Your task to perform on an android device: Do I have any events today? Image 0: 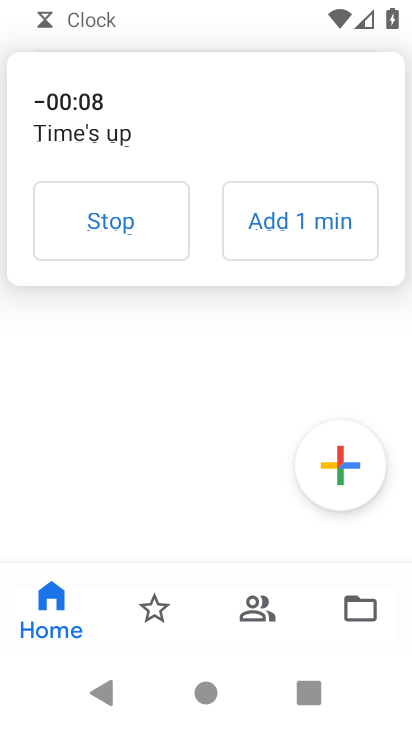
Step 0: drag from (232, 441) to (304, 487)
Your task to perform on an android device: Do I have any events today? Image 1: 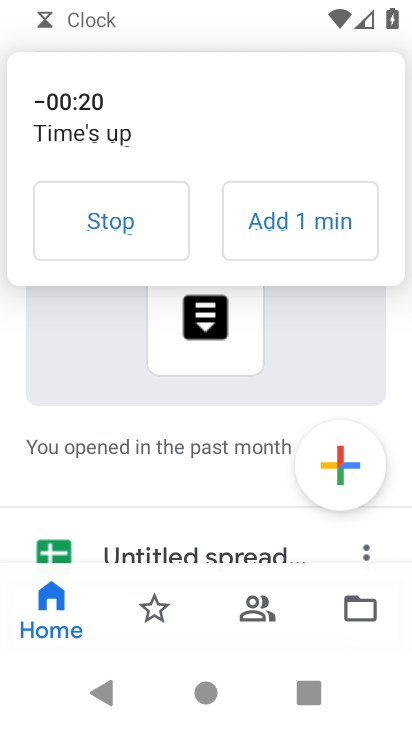
Step 1: press home button
Your task to perform on an android device: Do I have any events today? Image 2: 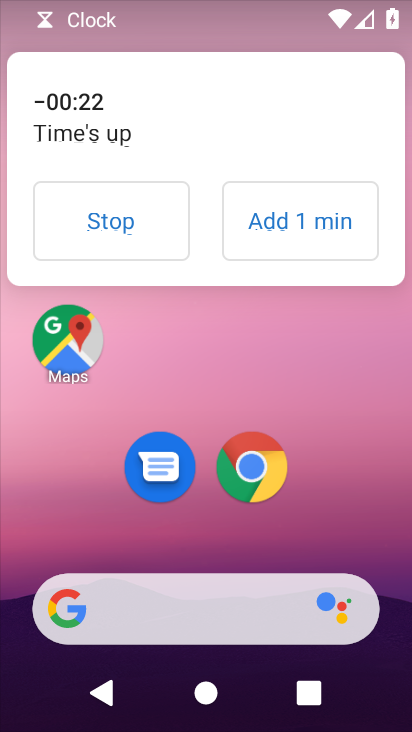
Step 2: click (163, 232)
Your task to perform on an android device: Do I have any events today? Image 3: 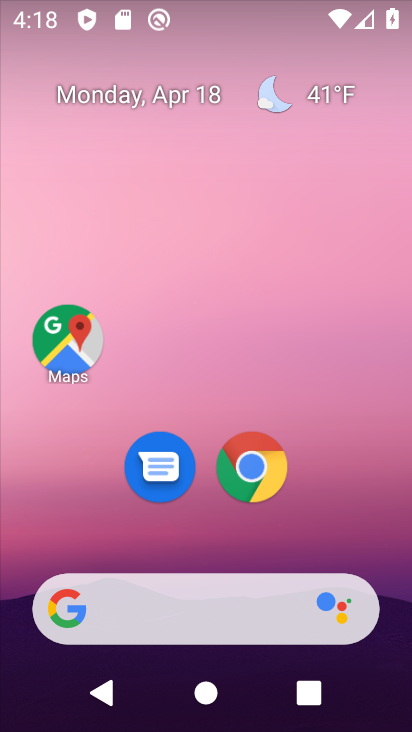
Step 3: drag from (219, 559) to (219, 148)
Your task to perform on an android device: Do I have any events today? Image 4: 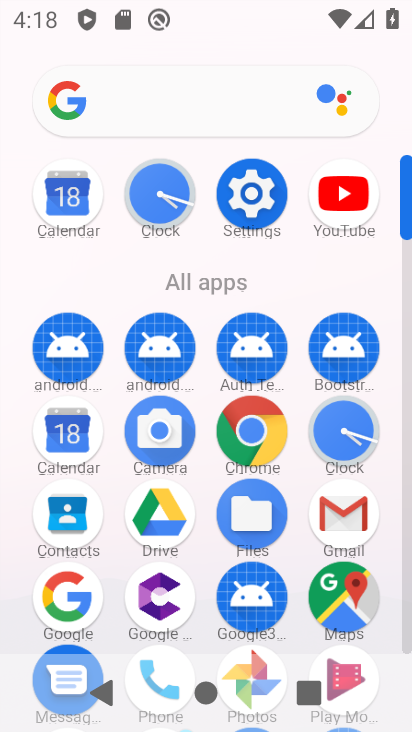
Step 4: click (60, 419)
Your task to perform on an android device: Do I have any events today? Image 5: 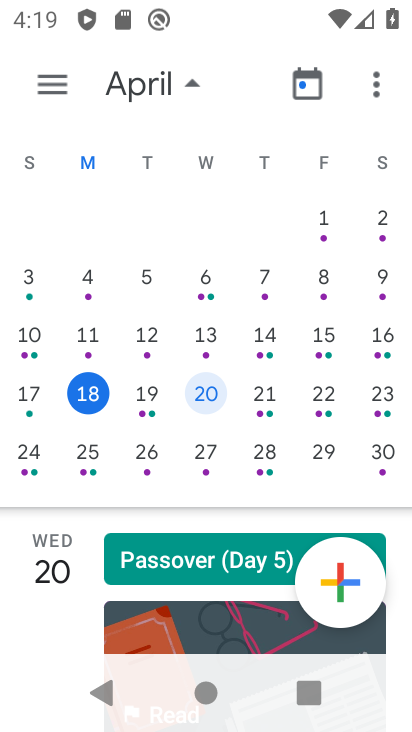
Step 5: drag from (235, 508) to (223, 184)
Your task to perform on an android device: Do I have any events today? Image 6: 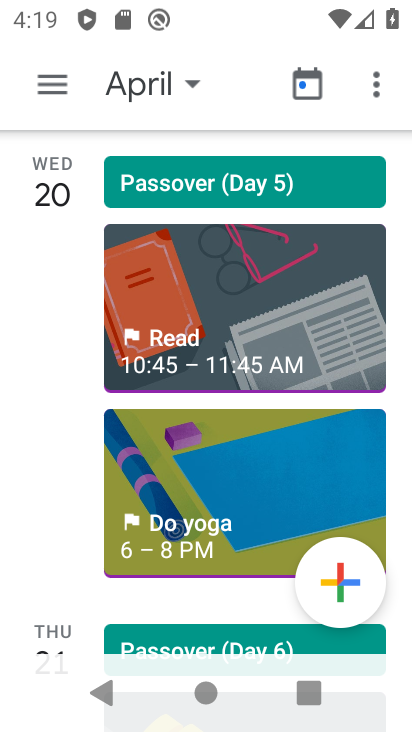
Step 6: drag from (249, 495) to (260, 353)
Your task to perform on an android device: Do I have any events today? Image 7: 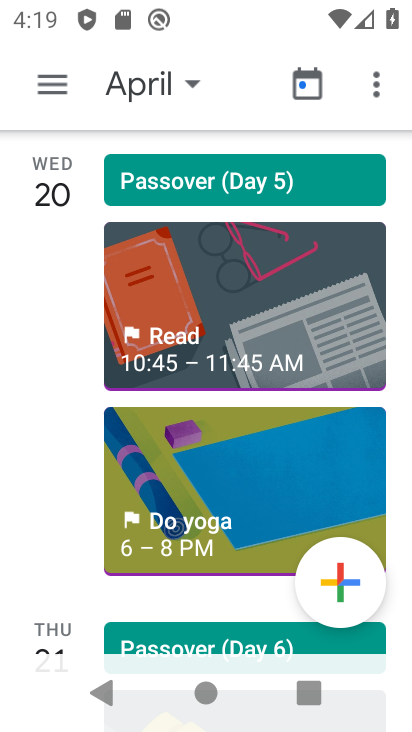
Step 7: click (222, 466)
Your task to perform on an android device: Do I have any events today? Image 8: 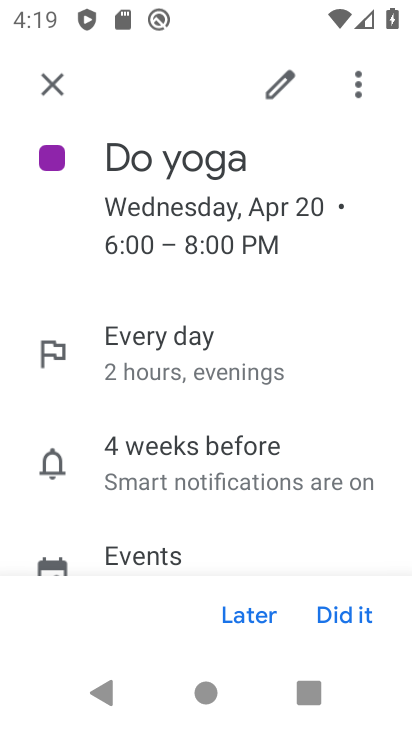
Step 8: task complete